Your task to perform on an android device: see tabs open on other devices in the chrome app Image 0: 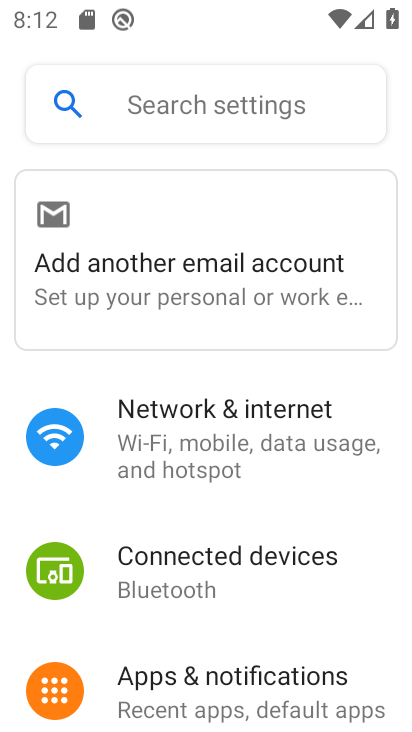
Step 0: press back button
Your task to perform on an android device: see tabs open on other devices in the chrome app Image 1: 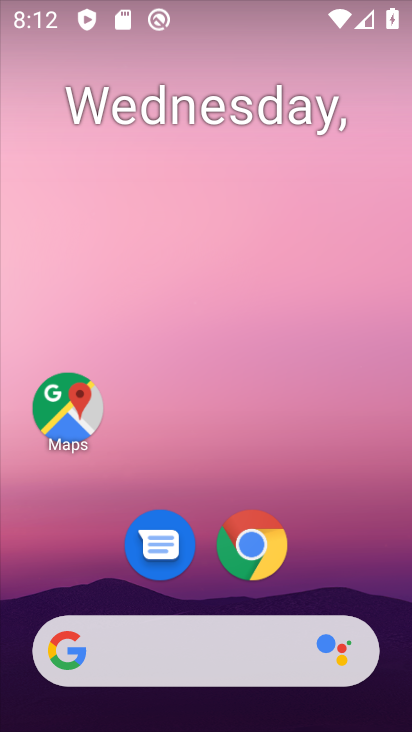
Step 1: click (256, 550)
Your task to perform on an android device: see tabs open on other devices in the chrome app Image 2: 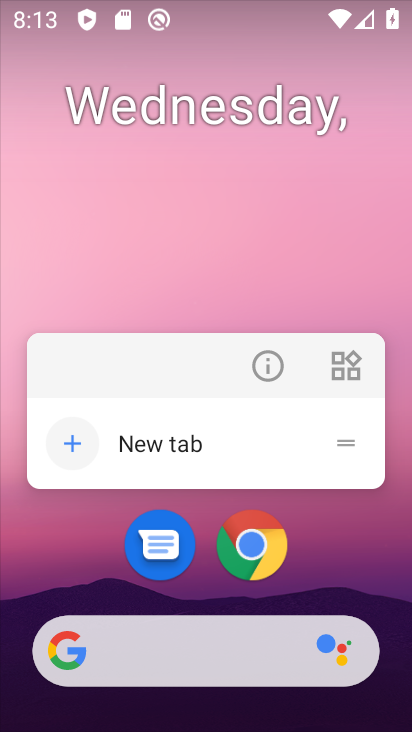
Step 2: click (256, 538)
Your task to perform on an android device: see tabs open on other devices in the chrome app Image 3: 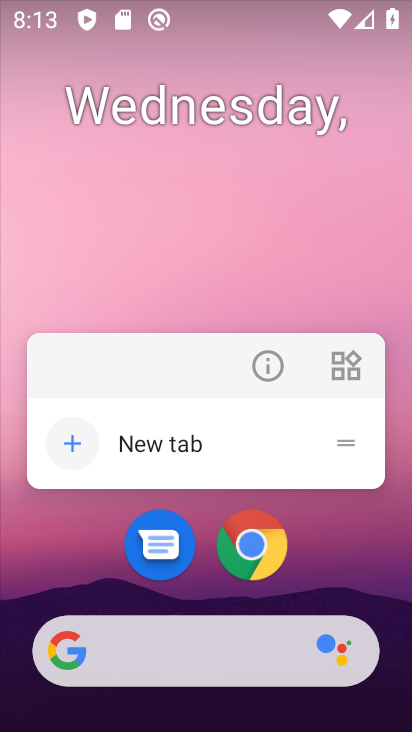
Step 3: click (251, 547)
Your task to perform on an android device: see tabs open on other devices in the chrome app Image 4: 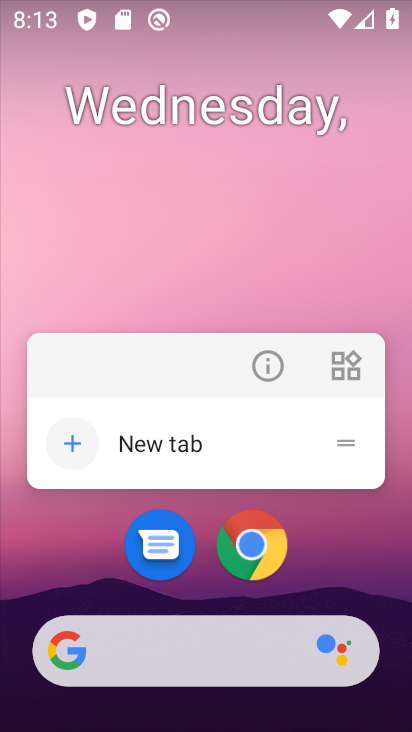
Step 4: click (247, 540)
Your task to perform on an android device: see tabs open on other devices in the chrome app Image 5: 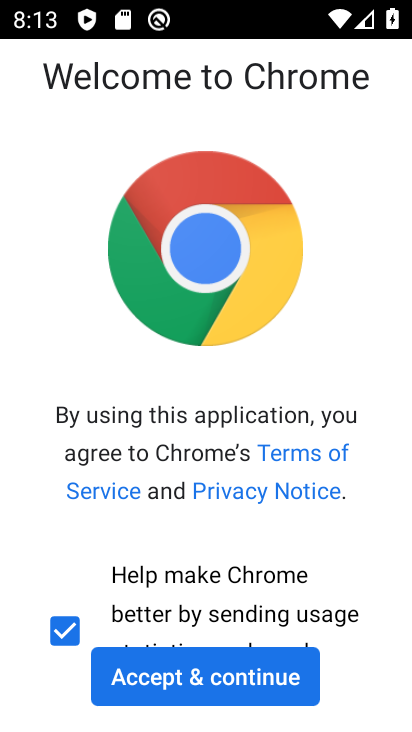
Step 5: click (185, 680)
Your task to perform on an android device: see tabs open on other devices in the chrome app Image 6: 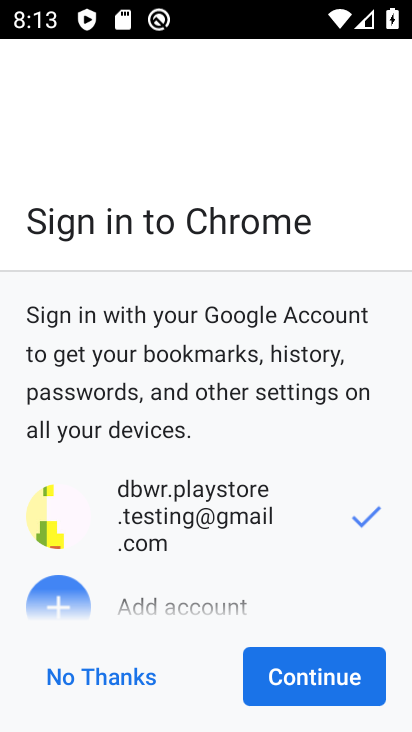
Step 6: click (336, 673)
Your task to perform on an android device: see tabs open on other devices in the chrome app Image 7: 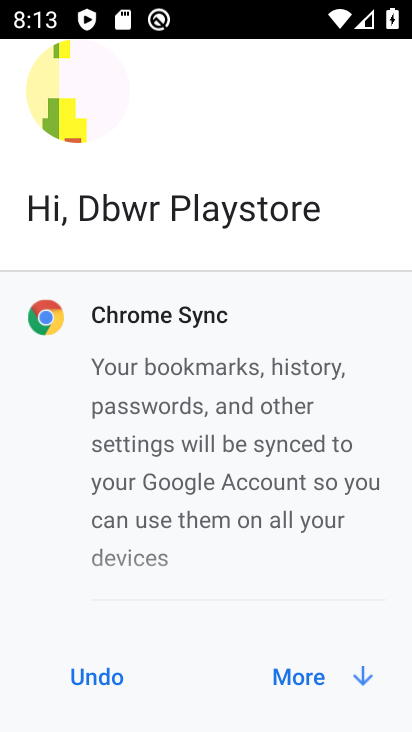
Step 7: click (336, 673)
Your task to perform on an android device: see tabs open on other devices in the chrome app Image 8: 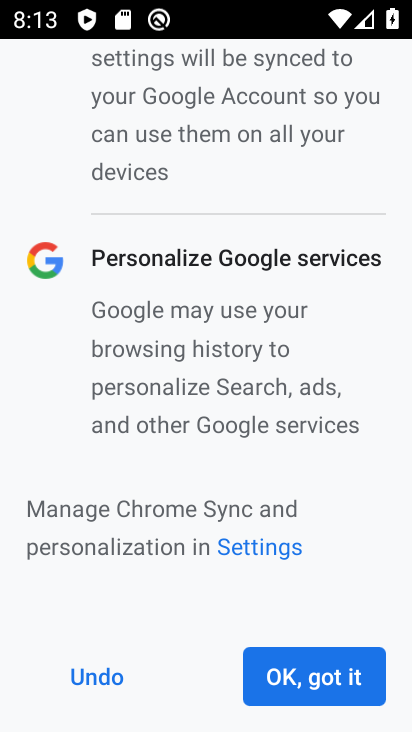
Step 8: click (336, 673)
Your task to perform on an android device: see tabs open on other devices in the chrome app Image 9: 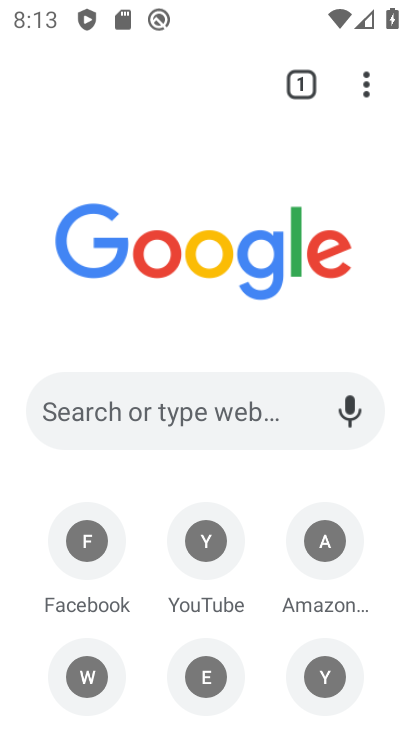
Step 9: task complete